Your task to perform on an android device: change your default location settings in chrome Image 0: 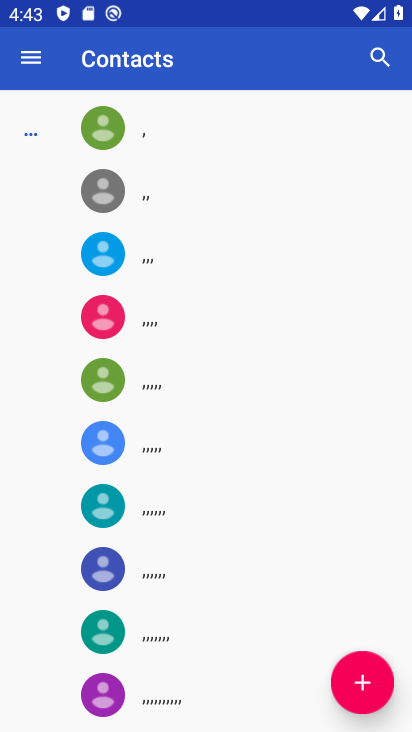
Step 0: press home button
Your task to perform on an android device: change your default location settings in chrome Image 1: 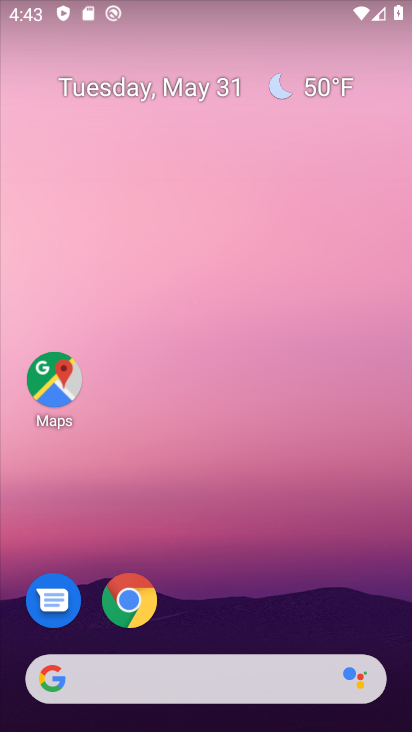
Step 1: click (130, 603)
Your task to perform on an android device: change your default location settings in chrome Image 2: 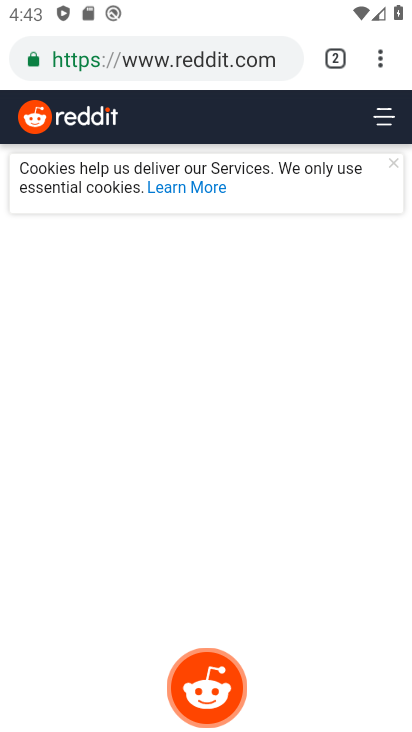
Step 2: click (381, 58)
Your task to perform on an android device: change your default location settings in chrome Image 3: 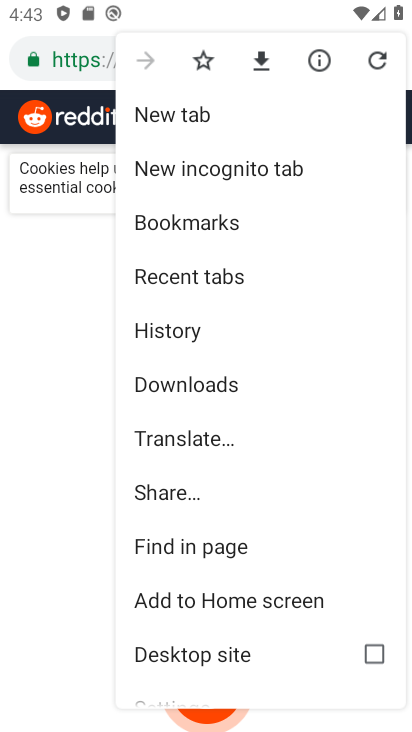
Step 3: drag from (219, 469) to (231, 331)
Your task to perform on an android device: change your default location settings in chrome Image 4: 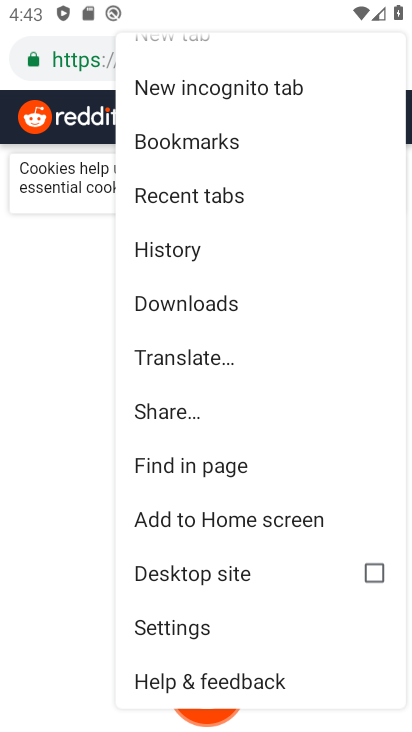
Step 4: click (180, 620)
Your task to perform on an android device: change your default location settings in chrome Image 5: 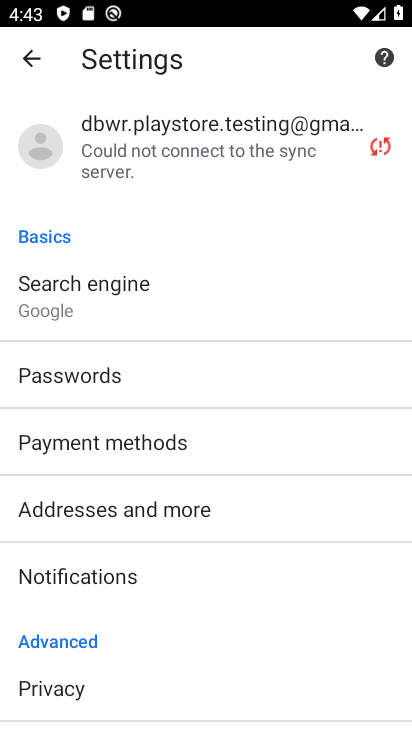
Step 5: drag from (157, 635) to (128, 424)
Your task to perform on an android device: change your default location settings in chrome Image 6: 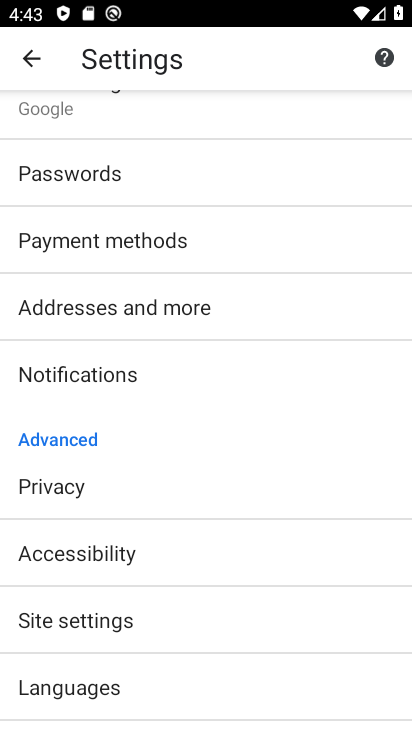
Step 6: drag from (129, 573) to (135, 443)
Your task to perform on an android device: change your default location settings in chrome Image 7: 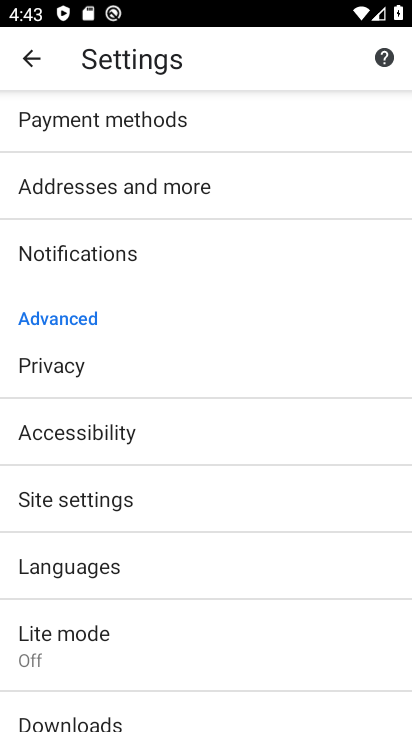
Step 7: click (92, 501)
Your task to perform on an android device: change your default location settings in chrome Image 8: 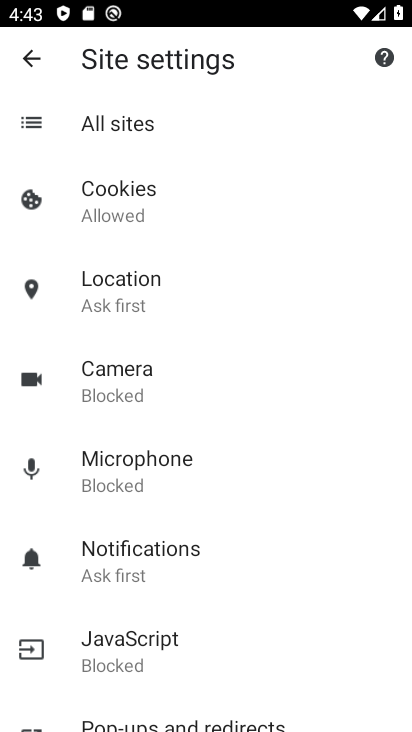
Step 8: click (135, 288)
Your task to perform on an android device: change your default location settings in chrome Image 9: 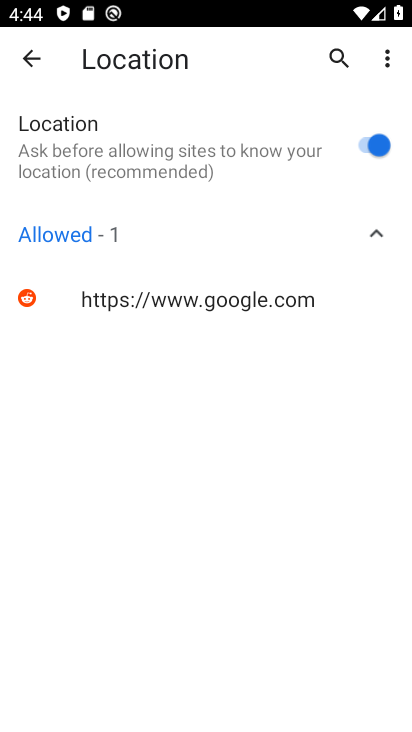
Step 9: task complete